Your task to perform on an android device: add a contact Image 0: 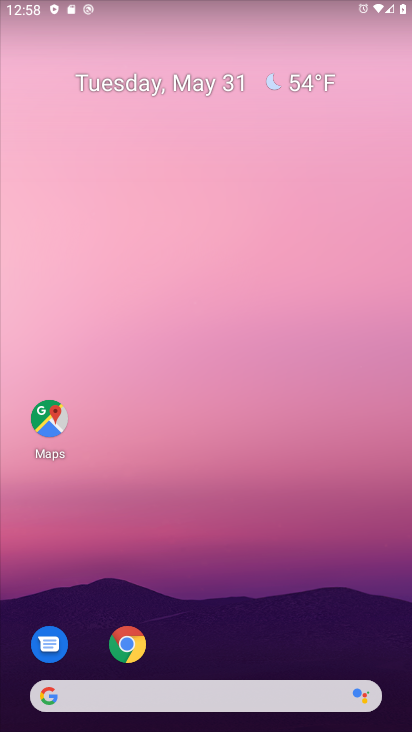
Step 0: drag from (266, 642) to (269, 157)
Your task to perform on an android device: add a contact Image 1: 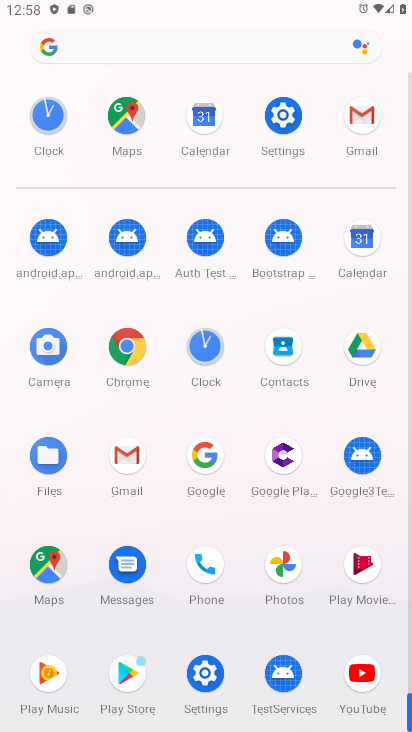
Step 1: click (286, 349)
Your task to perform on an android device: add a contact Image 2: 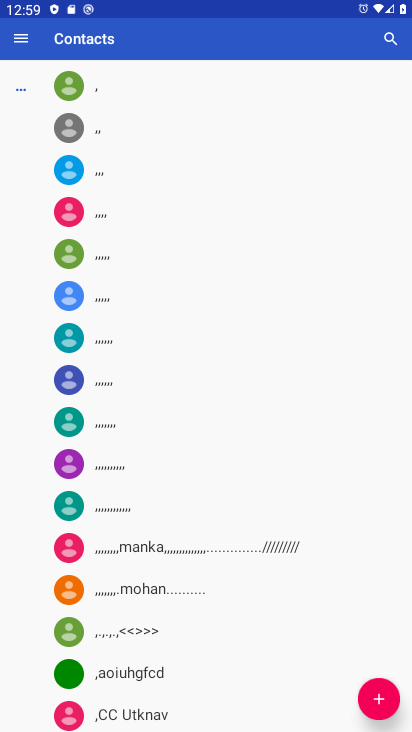
Step 2: click (381, 703)
Your task to perform on an android device: add a contact Image 3: 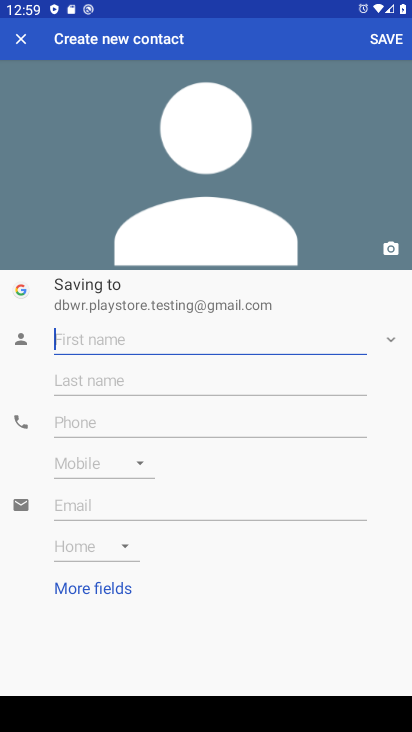
Step 3: type "xcxcxcxc"
Your task to perform on an android device: add a contact Image 4: 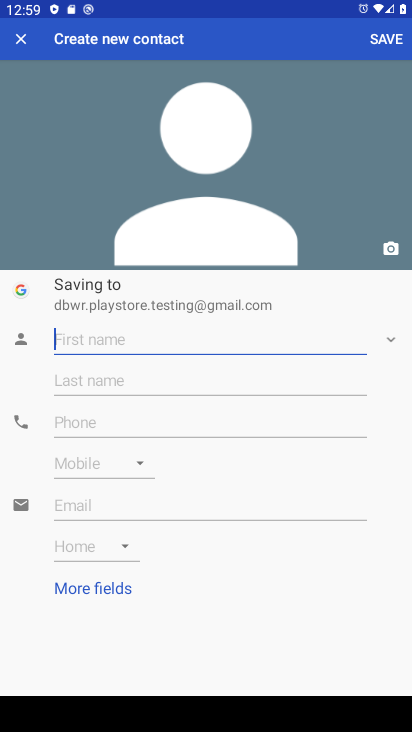
Step 4: click (77, 417)
Your task to perform on an android device: add a contact Image 5: 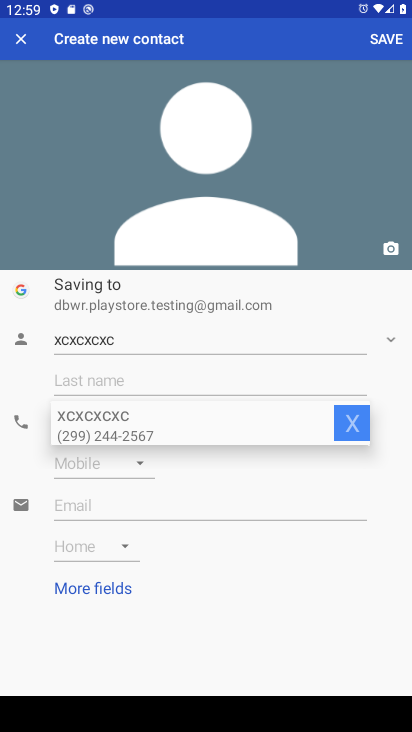
Step 5: type "343434343"
Your task to perform on an android device: add a contact Image 6: 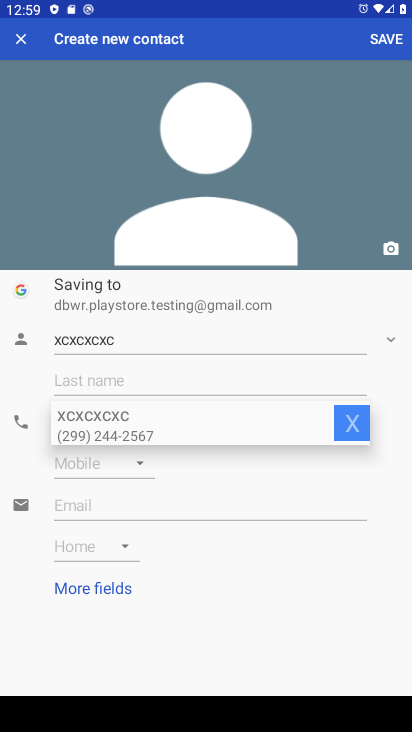
Step 6: click (193, 426)
Your task to perform on an android device: add a contact Image 7: 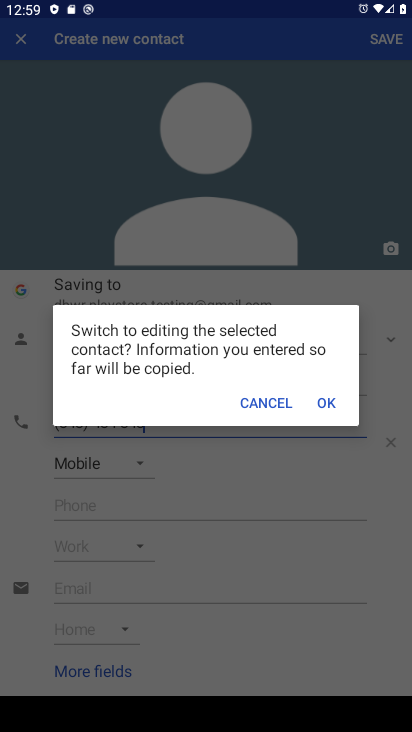
Step 7: click (313, 398)
Your task to perform on an android device: add a contact Image 8: 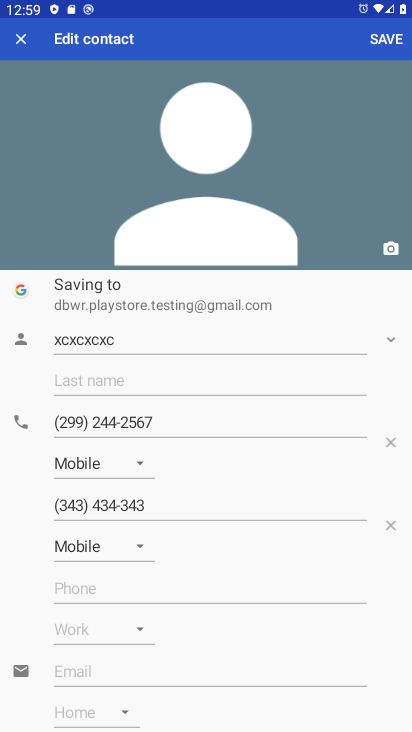
Step 8: click (219, 412)
Your task to perform on an android device: add a contact Image 9: 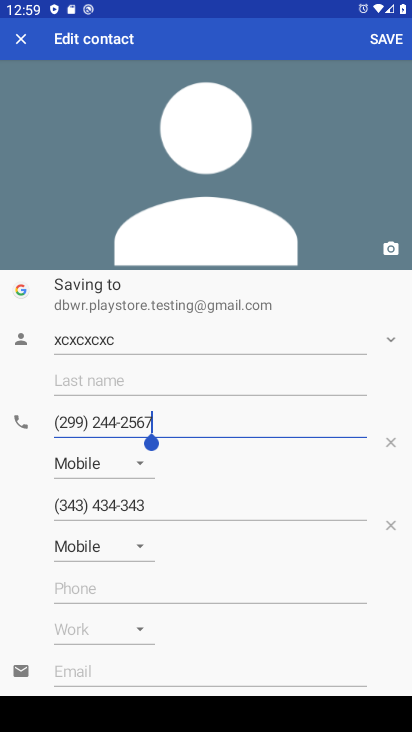
Step 9: click (392, 440)
Your task to perform on an android device: add a contact Image 10: 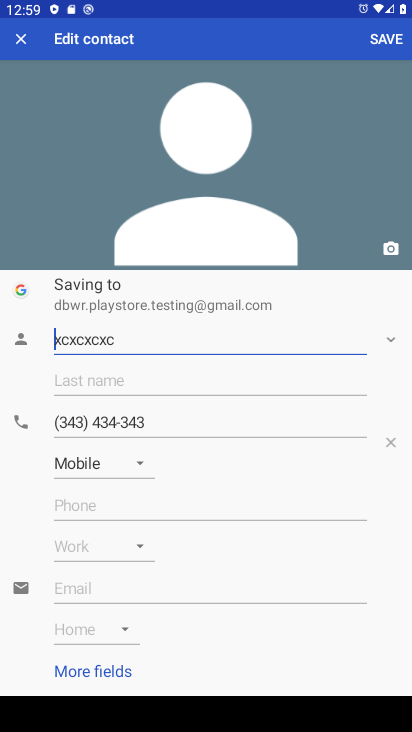
Step 10: click (391, 38)
Your task to perform on an android device: add a contact Image 11: 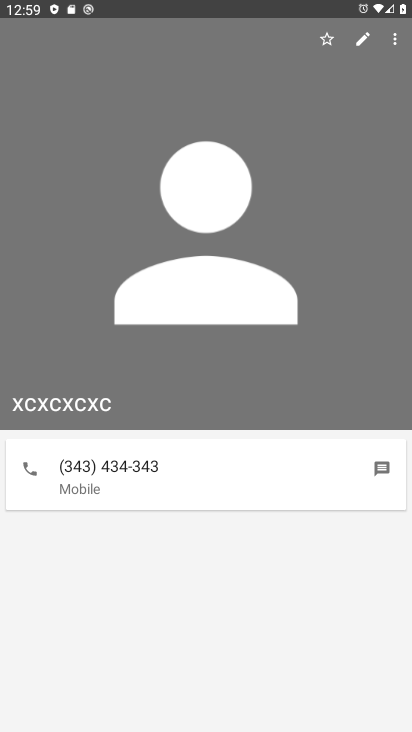
Step 11: task complete